Your task to perform on an android device: What's on my calendar today? Image 0: 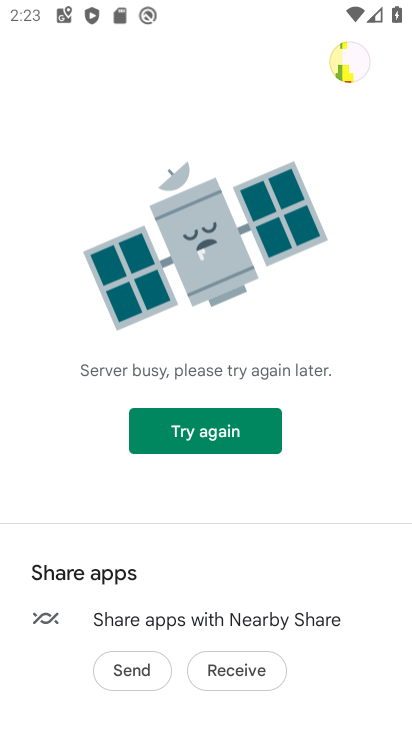
Step 0: press home button
Your task to perform on an android device: What's on my calendar today? Image 1: 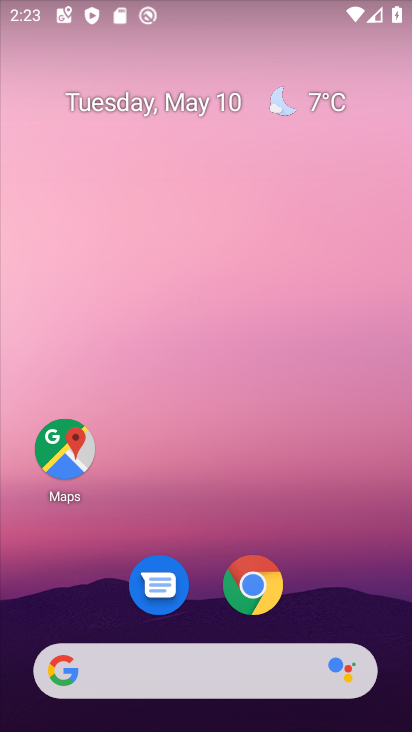
Step 1: drag from (241, 499) to (215, 0)
Your task to perform on an android device: What's on my calendar today? Image 2: 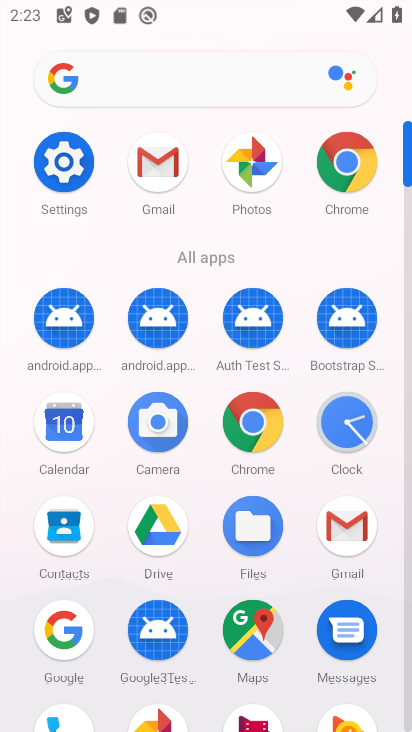
Step 2: click (75, 415)
Your task to perform on an android device: What's on my calendar today? Image 3: 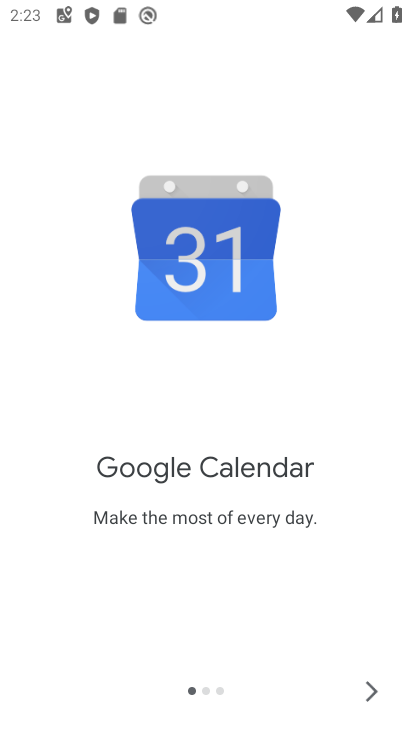
Step 3: click (364, 695)
Your task to perform on an android device: What's on my calendar today? Image 4: 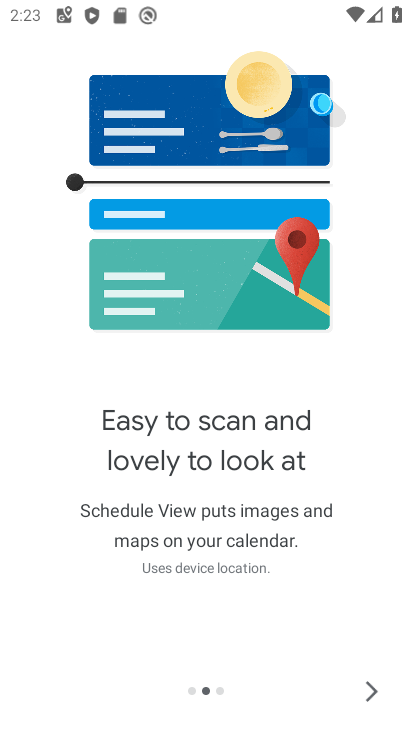
Step 4: click (363, 692)
Your task to perform on an android device: What's on my calendar today? Image 5: 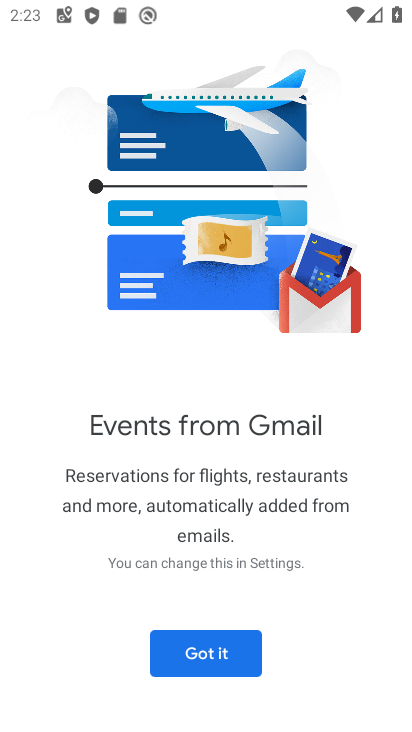
Step 5: click (363, 690)
Your task to perform on an android device: What's on my calendar today? Image 6: 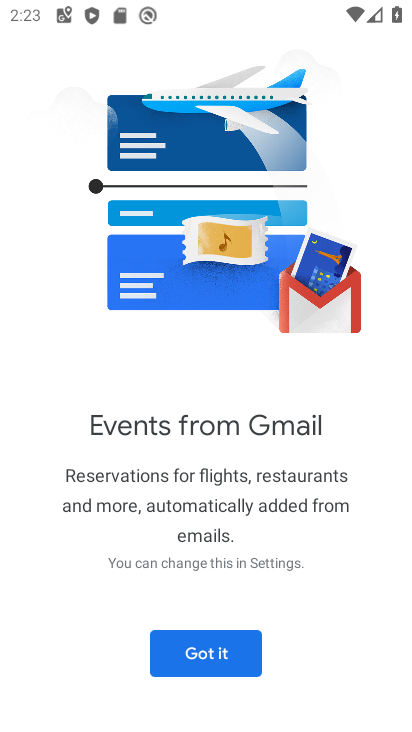
Step 6: click (234, 653)
Your task to perform on an android device: What's on my calendar today? Image 7: 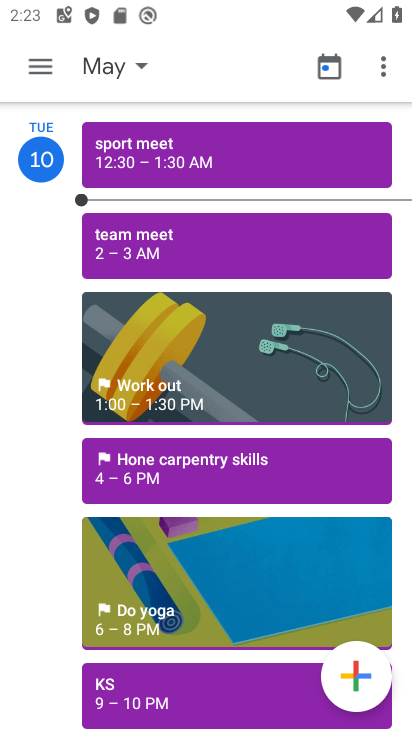
Step 7: task complete